Your task to perform on an android device: change timer sound Image 0: 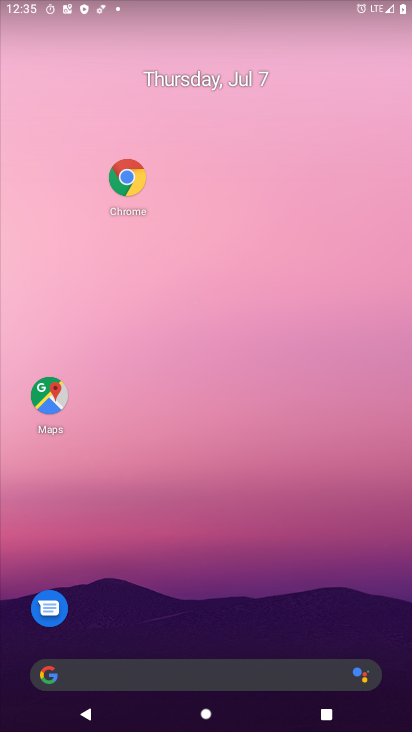
Step 0: drag from (179, 660) to (179, 323)
Your task to perform on an android device: change timer sound Image 1: 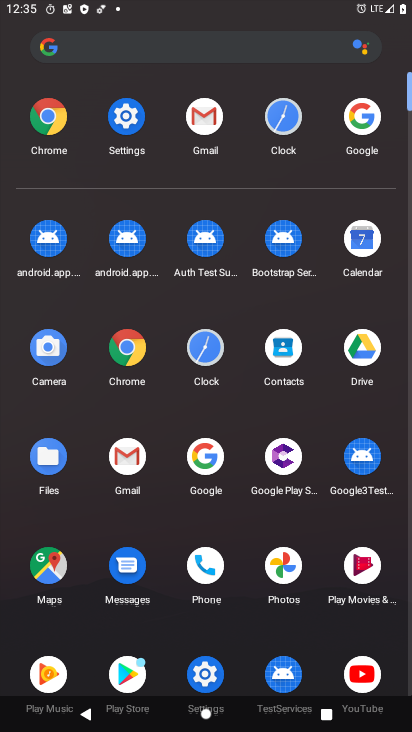
Step 1: click (214, 352)
Your task to perform on an android device: change timer sound Image 2: 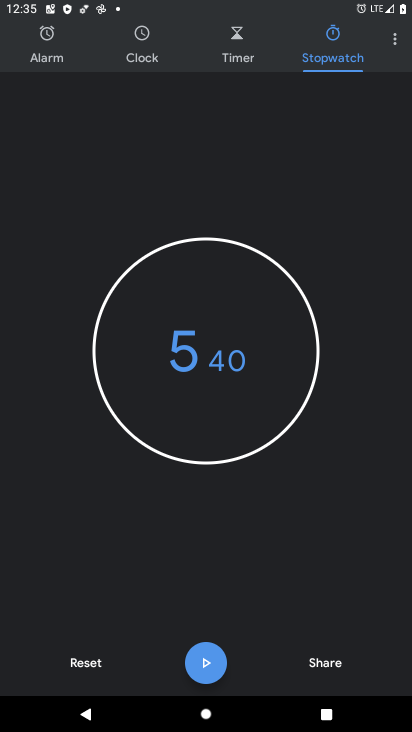
Step 2: click (391, 41)
Your task to perform on an android device: change timer sound Image 3: 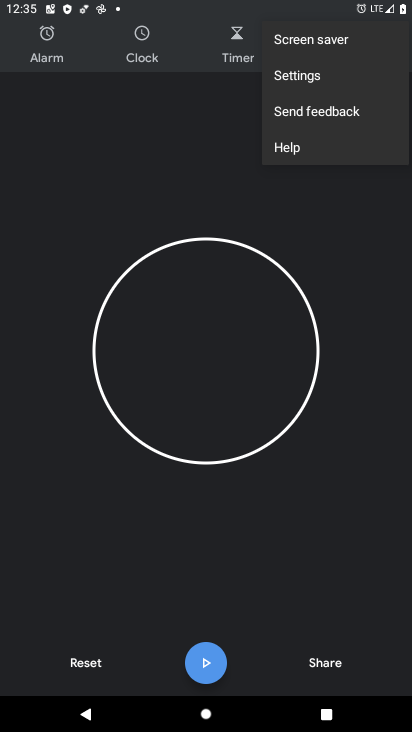
Step 3: click (295, 80)
Your task to perform on an android device: change timer sound Image 4: 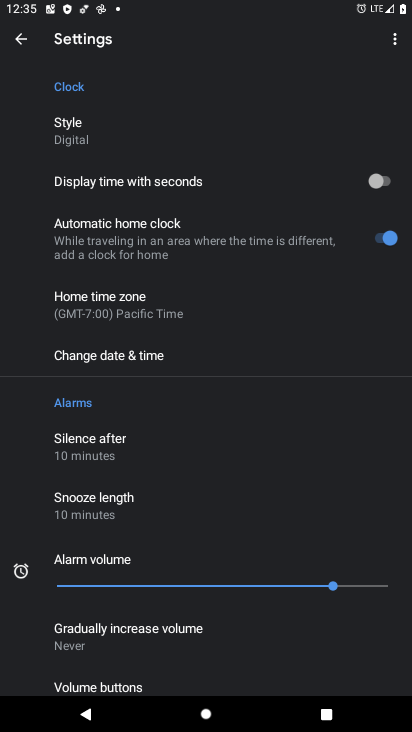
Step 4: drag from (91, 653) to (171, 312)
Your task to perform on an android device: change timer sound Image 5: 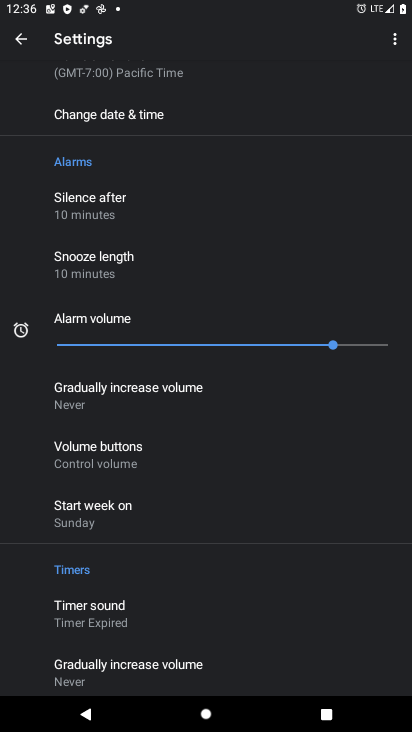
Step 5: click (114, 609)
Your task to perform on an android device: change timer sound Image 6: 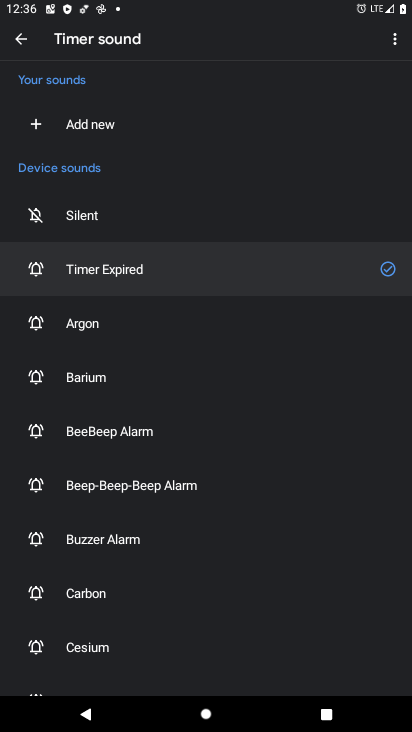
Step 6: click (98, 210)
Your task to perform on an android device: change timer sound Image 7: 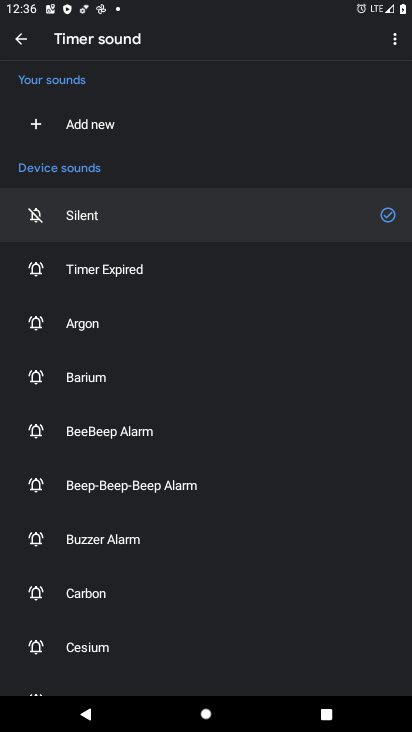
Step 7: click (86, 323)
Your task to perform on an android device: change timer sound Image 8: 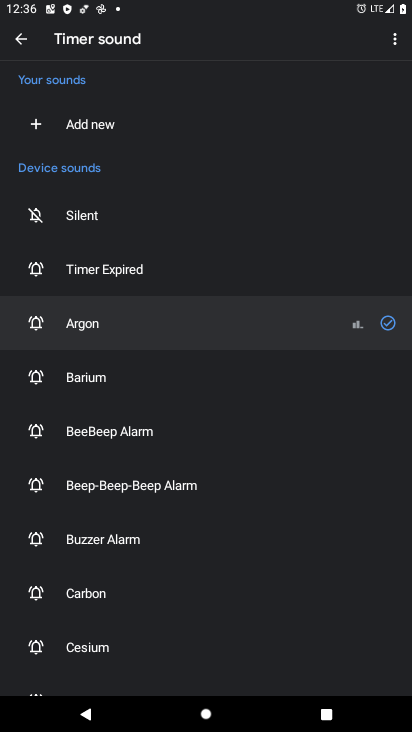
Step 8: task complete